Your task to perform on an android device: Open Maps and search for coffee Image 0: 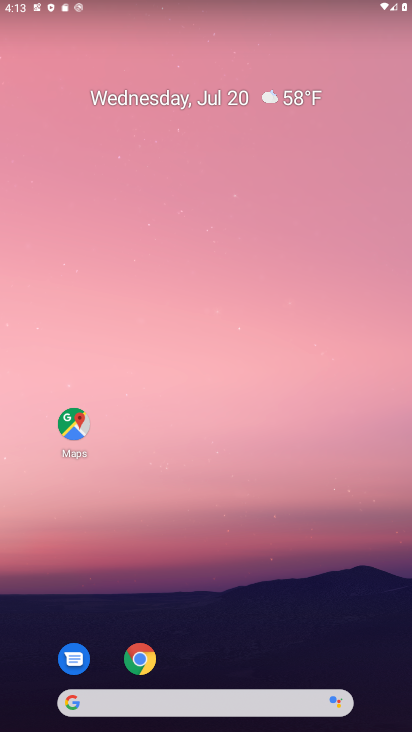
Step 0: drag from (343, 542) to (346, 246)
Your task to perform on an android device: Open Maps and search for coffee Image 1: 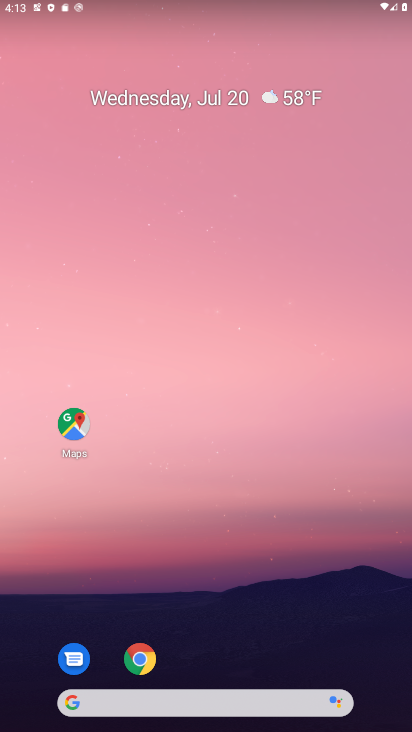
Step 1: drag from (189, 607) to (143, 381)
Your task to perform on an android device: Open Maps and search for coffee Image 2: 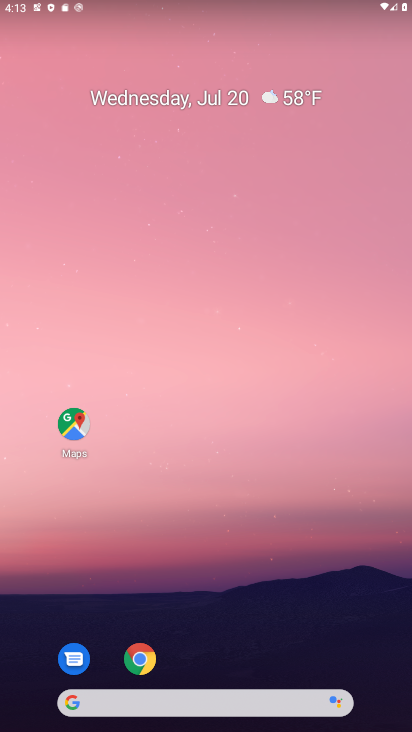
Step 2: drag from (244, 644) to (155, 222)
Your task to perform on an android device: Open Maps and search for coffee Image 3: 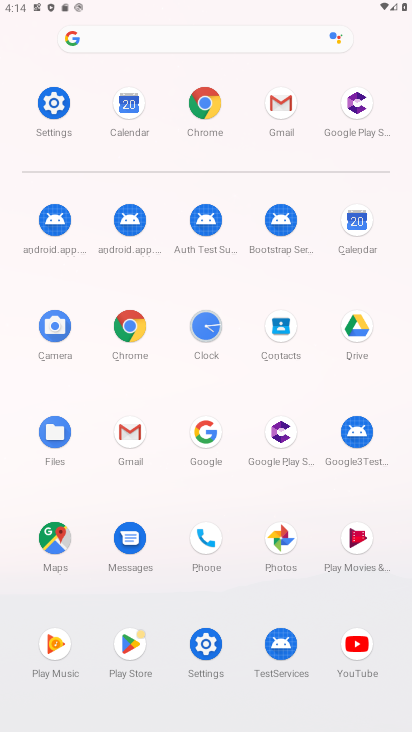
Step 3: click (50, 541)
Your task to perform on an android device: Open Maps and search for coffee Image 4: 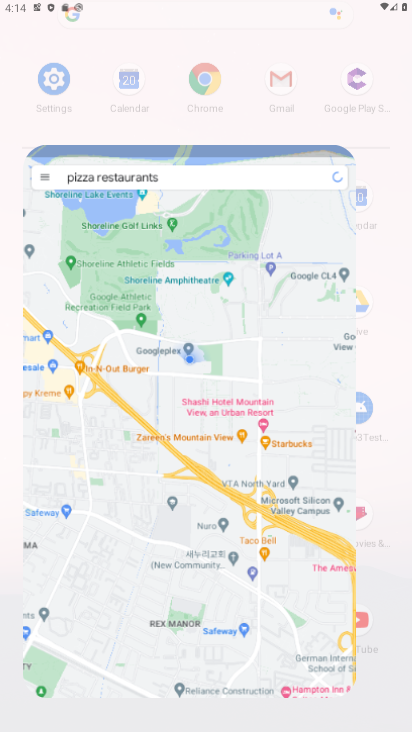
Step 4: click (62, 532)
Your task to perform on an android device: Open Maps and search for coffee Image 5: 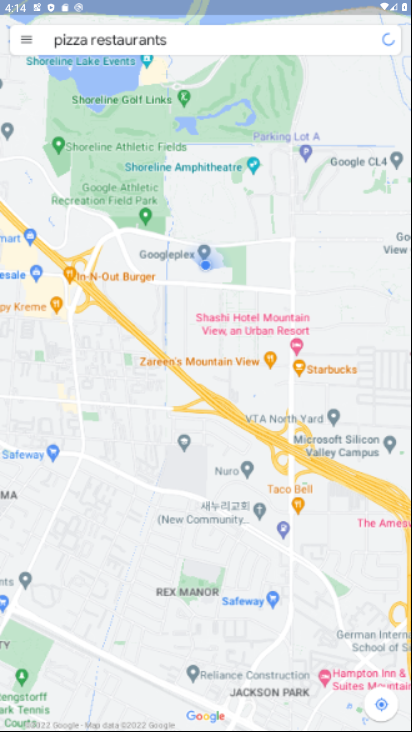
Step 5: click (71, 538)
Your task to perform on an android device: Open Maps and search for coffee Image 6: 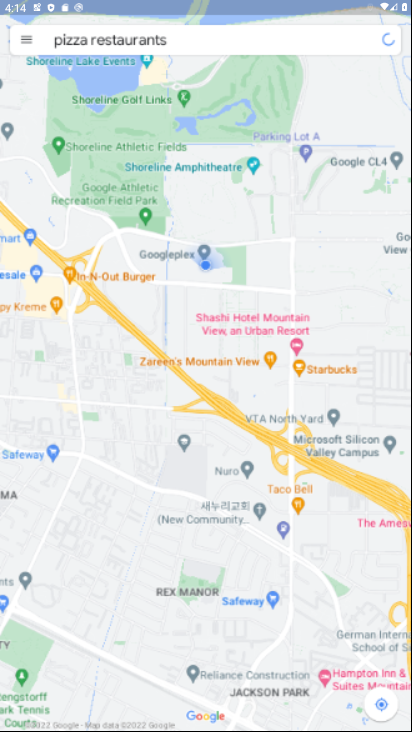
Step 6: click (187, 34)
Your task to perform on an android device: Open Maps and search for coffee Image 7: 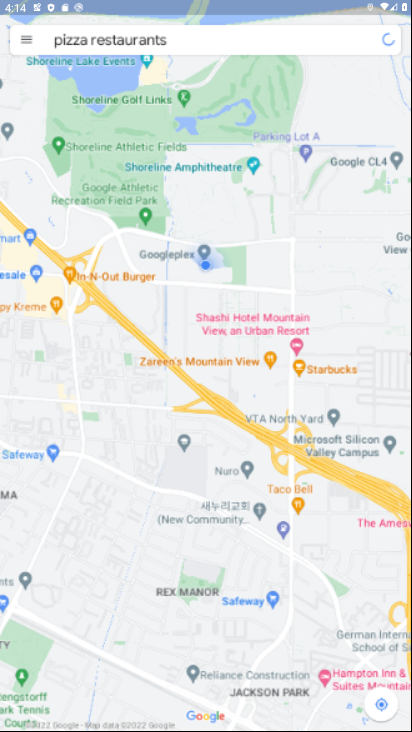
Step 7: click (187, 34)
Your task to perform on an android device: Open Maps and search for coffee Image 8: 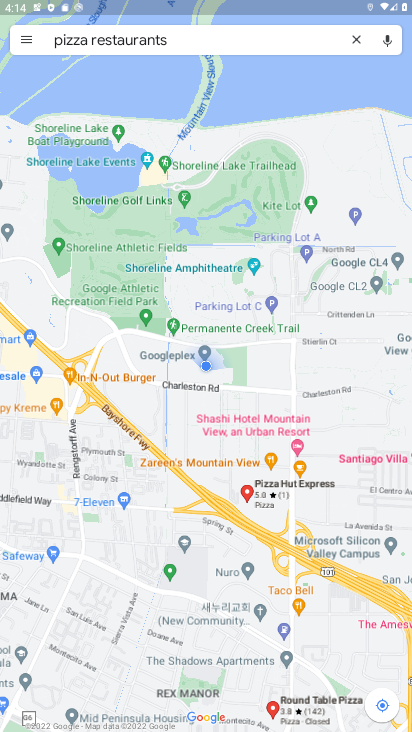
Step 8: click (361, 36)
Your task to perform on an android device: Open Maps and search for coffee Image 9: 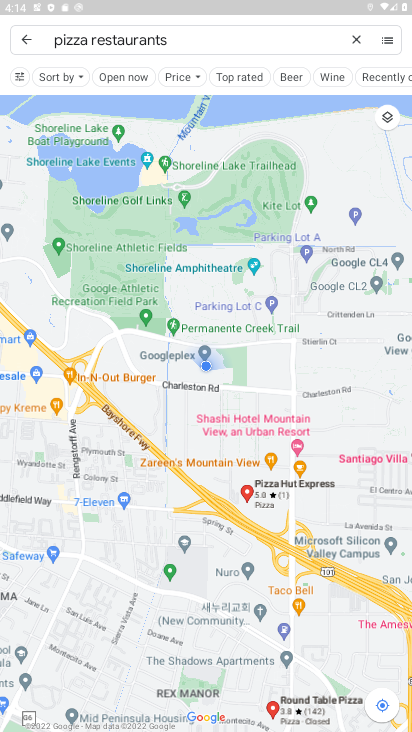
Step 9: click (361, 36)
Your task to perform on an android device: Open Maps and search for coffee Image 10: 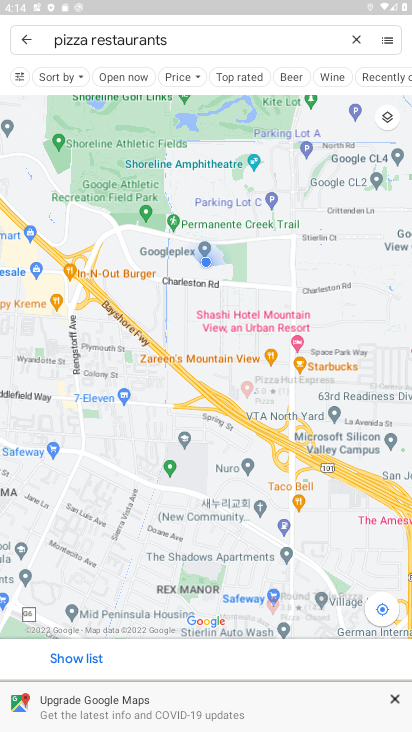
Step 10: click (355, 36)
Your task to perform on an android device: Open Maps and search for coffee Image 11: 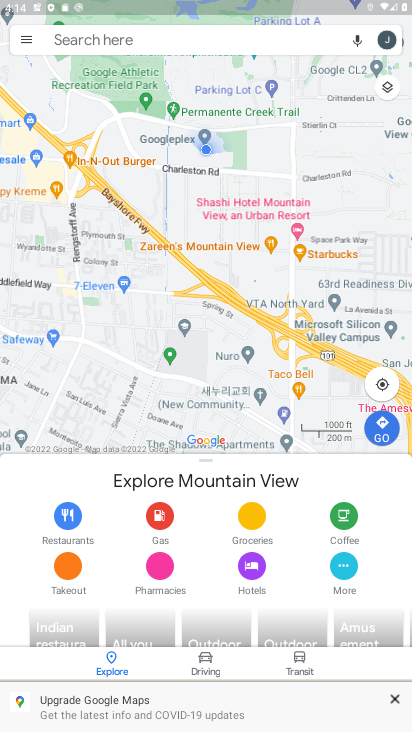
Step 11: click (173, 34)
Your task to perform on an android device: Open Maps and search for coffee Image 12: 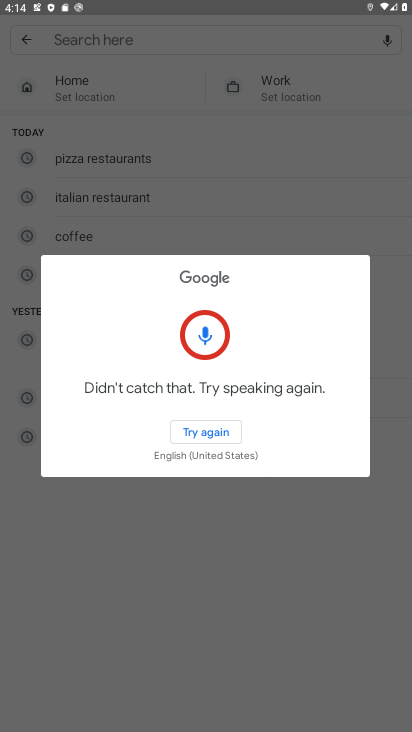
Step 12: type "coffee"
Your task to perform on an android device: Open Maps and search for coffee Image 13: 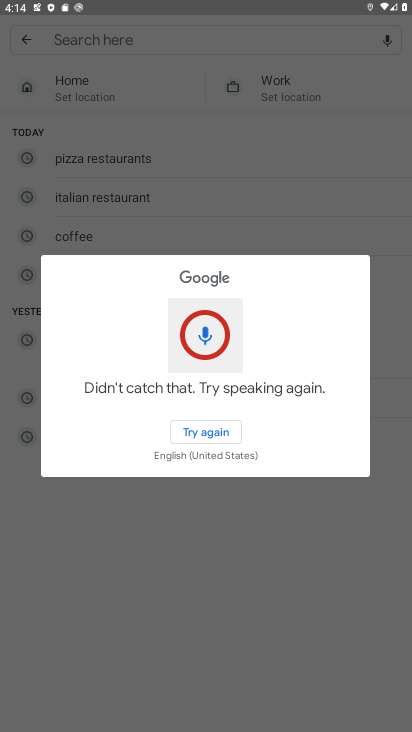
Step 13: click (221, 152)
Your task to perform on an android device: Open Maps and search for coffee Image 14: 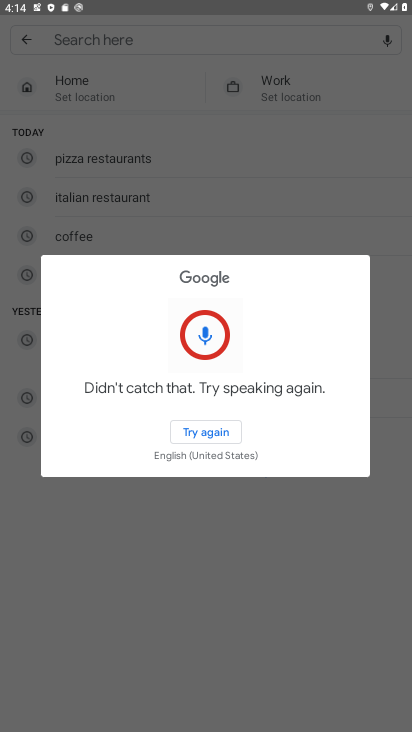
Step 14: click (223, 159)
Your task to perform on an android device: Open Maps and search for coffee Image 15: 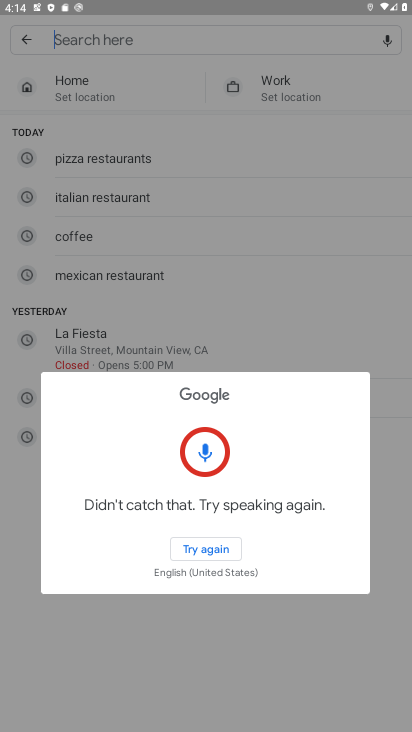
Step 15: click (227, 163)
Your task to perform on an android device: Open Maps and search for coffee Image 16: 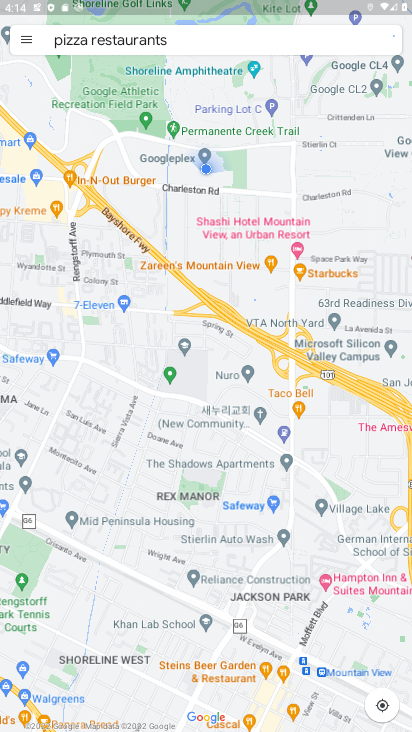
Step 16: click (174, 35)
Your task to perform on an android device: Open Maps and search for coffee Image 17: 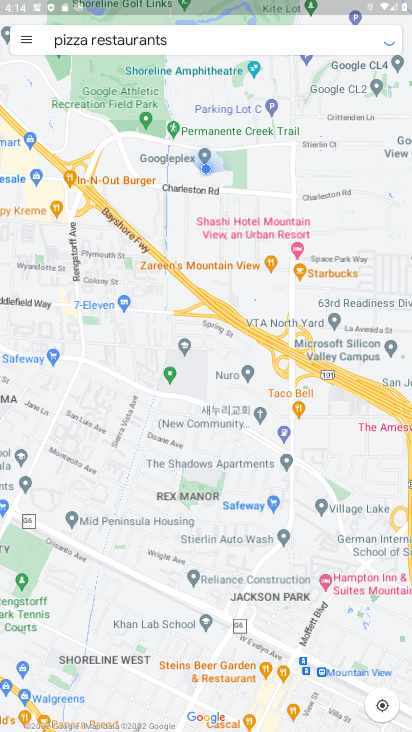
Step 17: click (182, 43)
Your task to perform on an android device: Open Maps and search for coffee Image 18: 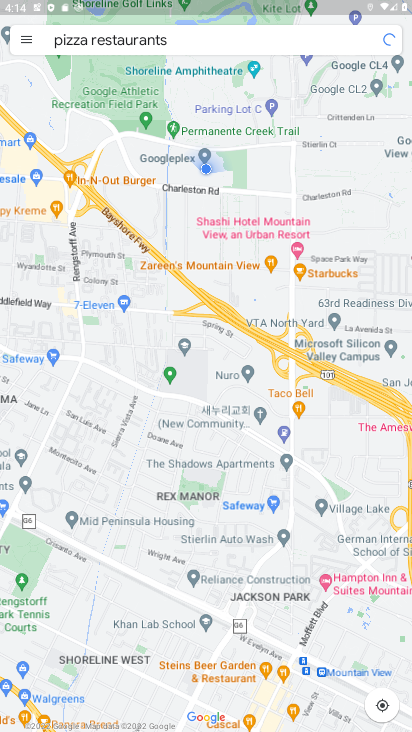
Step 18: click (182, 43)
Your task to perform on an android device: Open Maps and search for coffee Image 19: 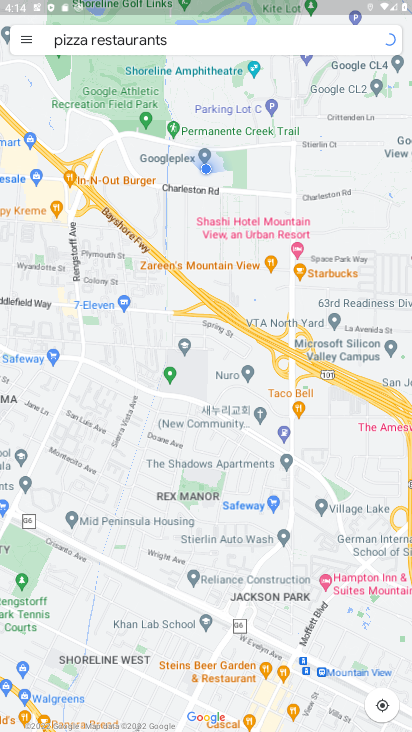
Step 19: click (185, 39)
Your task to perform on an android device: Open Maps and search for coffee Image 20: 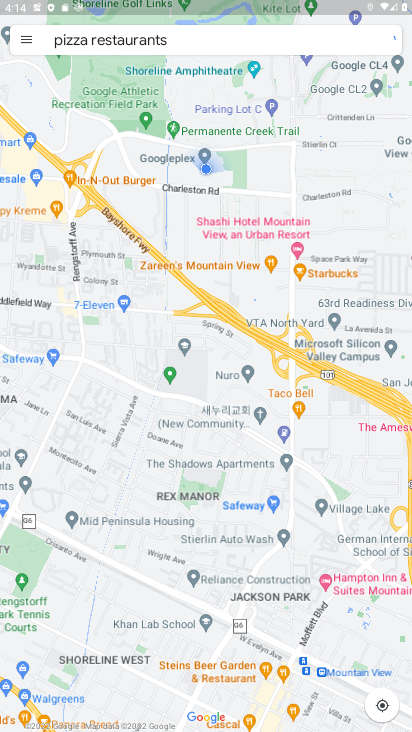
Step 20: click (188, 36)
Your task to perform on an android device: Open Maps and search for coffee Image 21: 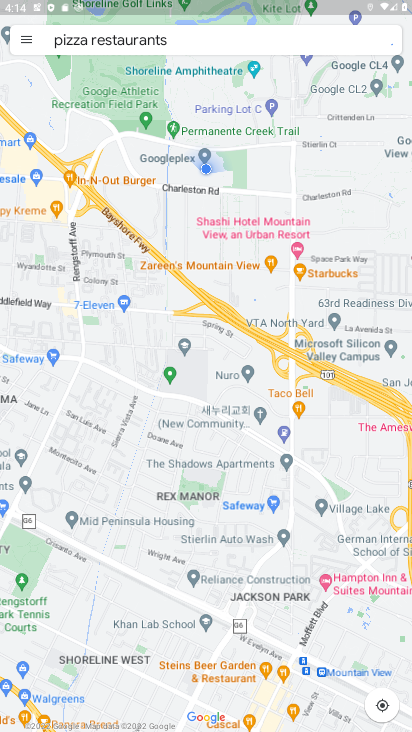
Step 21: click (195, 35)
Your task to perform on an android device: Open Maps and search for coffee Image 22: 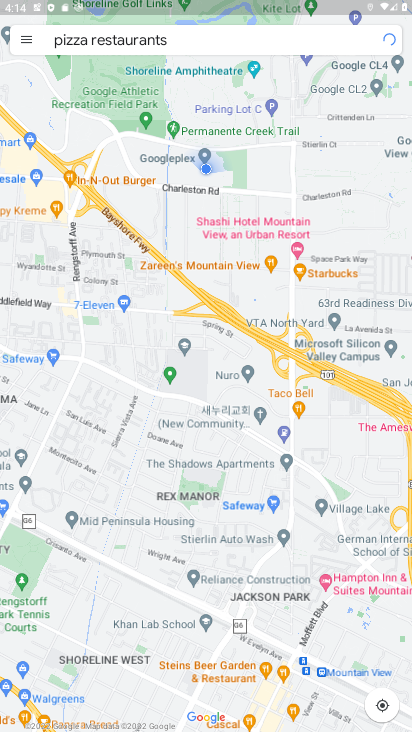
Step 22: click (203, 36)
Your task to perform on an android device: Open Maps and search for coffee Image 23: 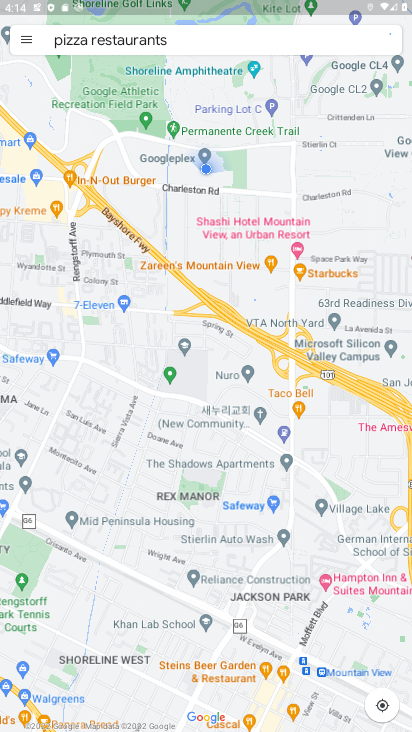
Step 23: drag from (103, 43) to (258, 28)
Your task to perform on an android device: Open Maps and search for coffee Image 24: 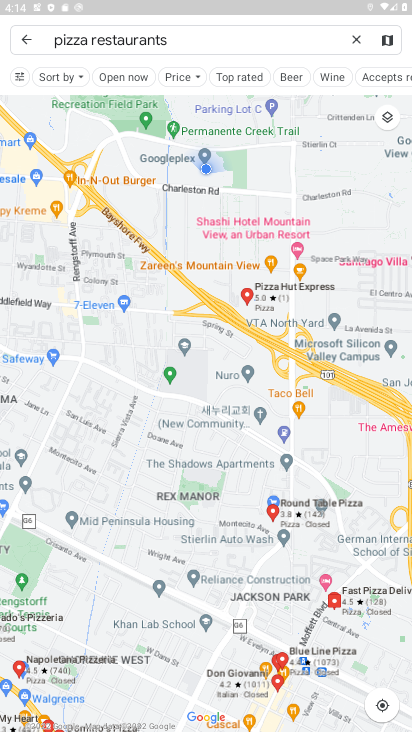
Step 24: click (218, 42)
Your task to perform on an android device: Open Maps and search for coffee Image 25: 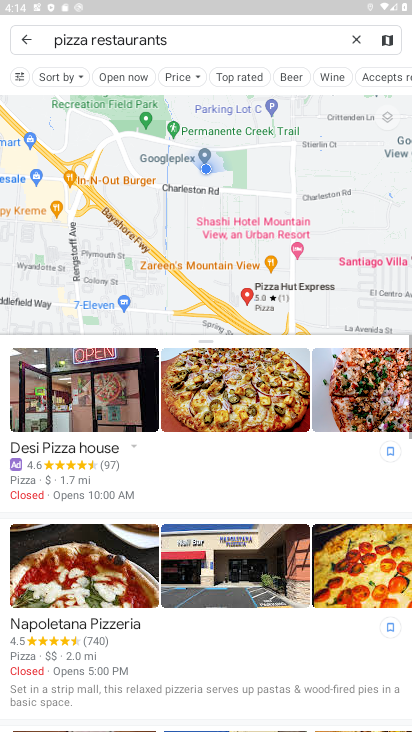
Step 25: click (218, 42)
Your task to perform on an android device: Open Maps and search for coffee Image 26: 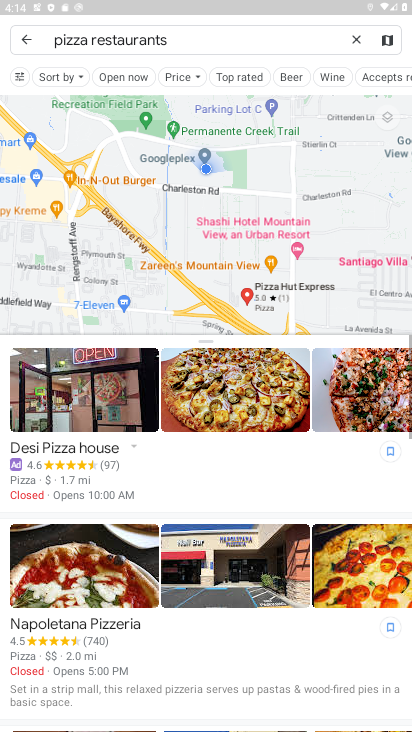
Step 26: click (213, 52)
Your task to perform on an android device: Open Maps and search for coffee Image 27: 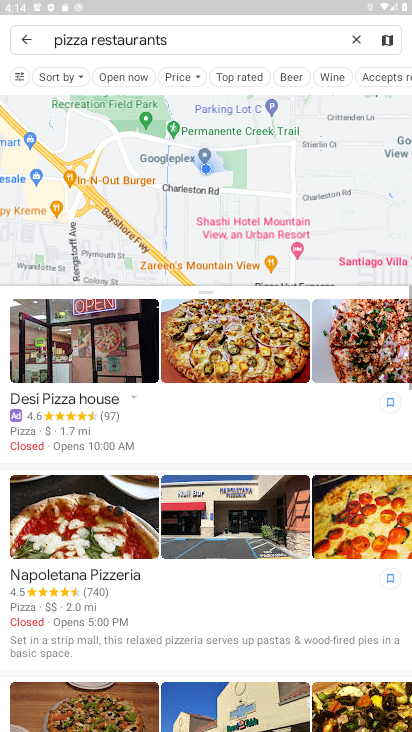
Step 27: click (212, 52)
Your task to perform on an android device: Open Maps and search for coffee Image 28: 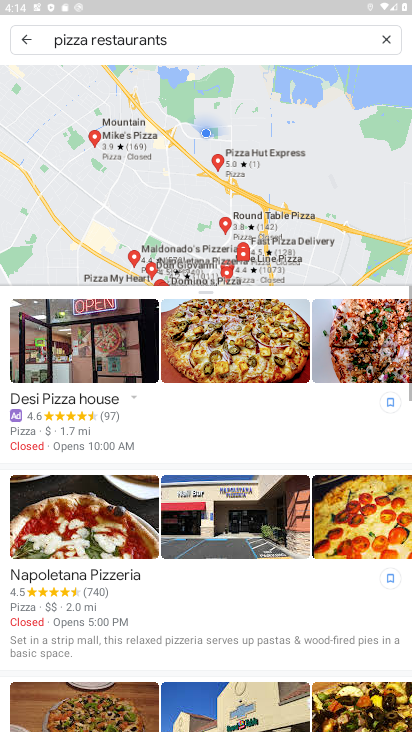
Step 28: click (216, 45)
Your task to perform on an android device: Open Maps and search for coffee Image 29: 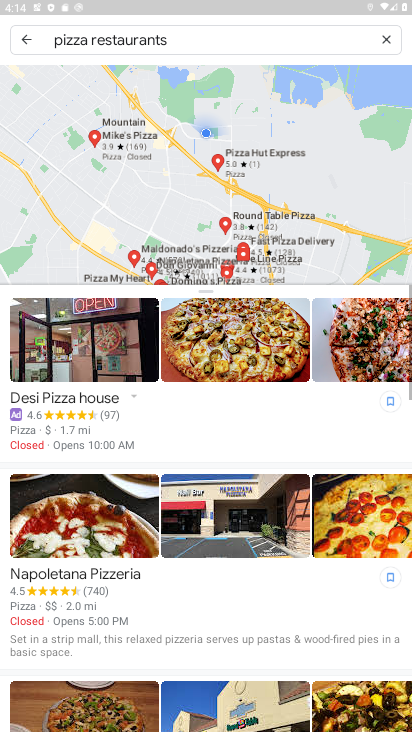
Step 29: click (188, 46)
Your task to perform on an android device: Open Maps and search for coffee Image 30: 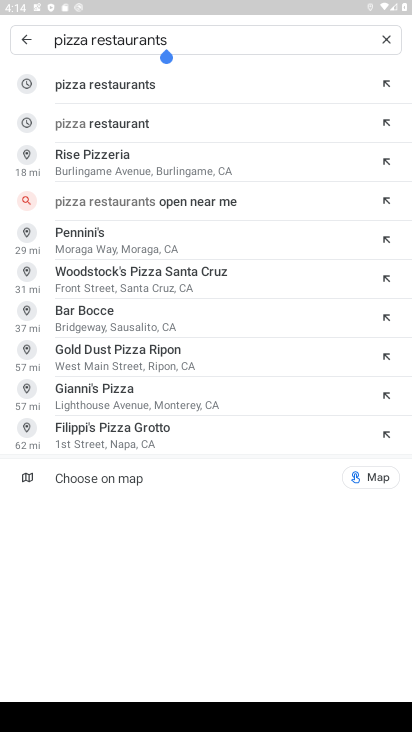
Step 30: click (389, 39)
Your task to perform on an android device: Open Maps and search for coffee Image 31: 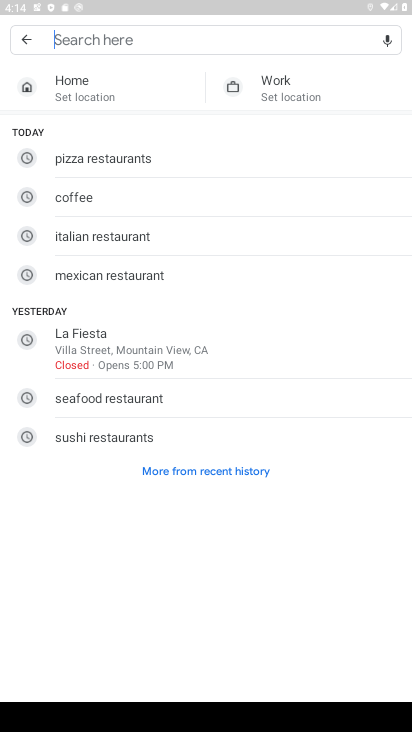
Step 31: click (88, 189)
Your task to perform on an android device: Open Maps and search for coffee Image 32: 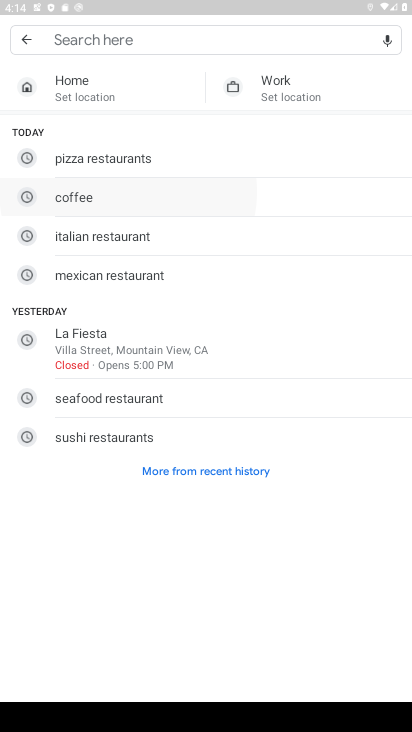
Step 32: click (87, 192)
Your task to perform on an android device: Open Maps and search for coffee Image 33: 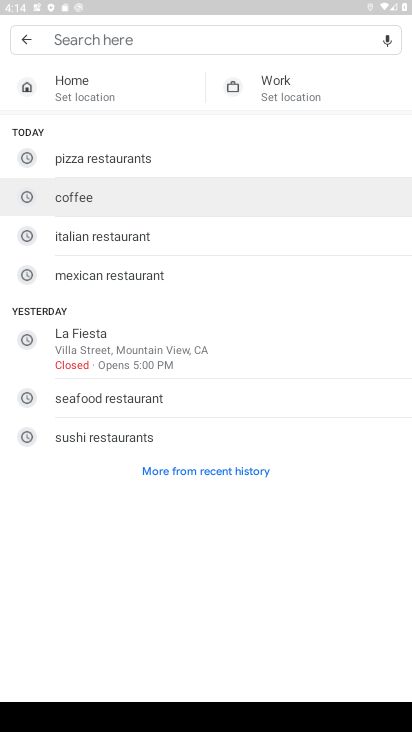
Step 33: click (87, 192)
Your task to perform on an android device: Open Maps and search for coffee Image 34: 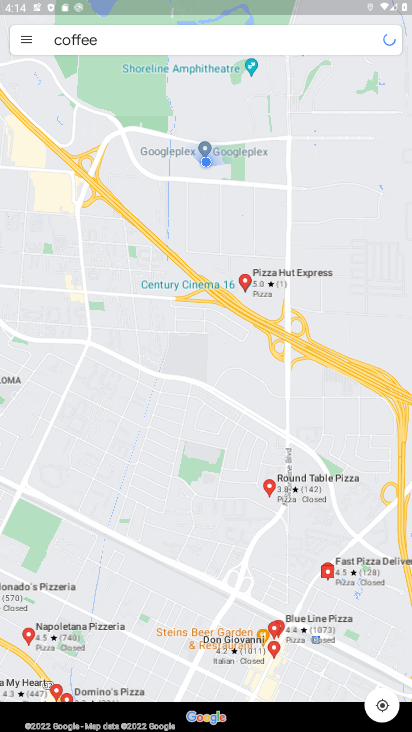
Step 34: click (85, 199)
Your task to perform on an android device: Open Maps and search for coffee Image 35: 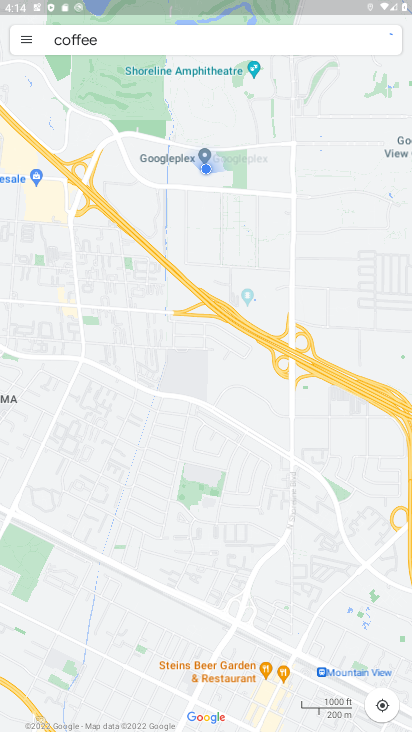
Step 35: task complete